Your task to perform on an android device: open wifi settings Image 0: 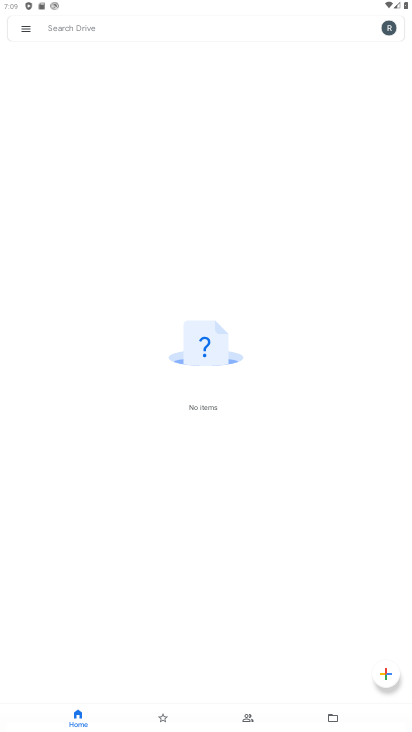
Step 0: press home button
Your task to perform on an android device: open wifi settings Image 1: 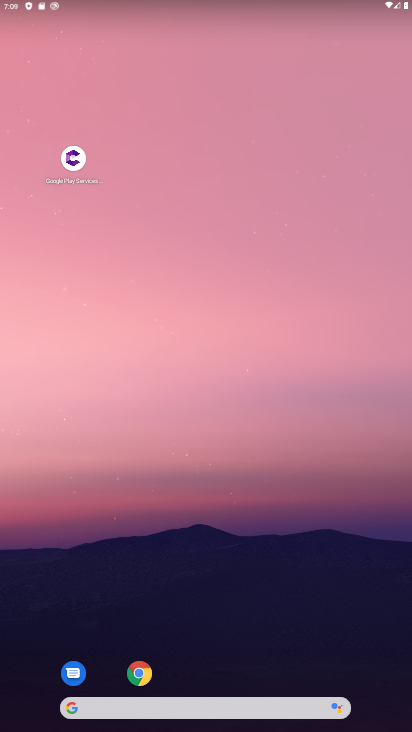
Step 1: drag from (257, 610) to (226, 48)
Your task to perform on an android device: open wifi settings Image 2: 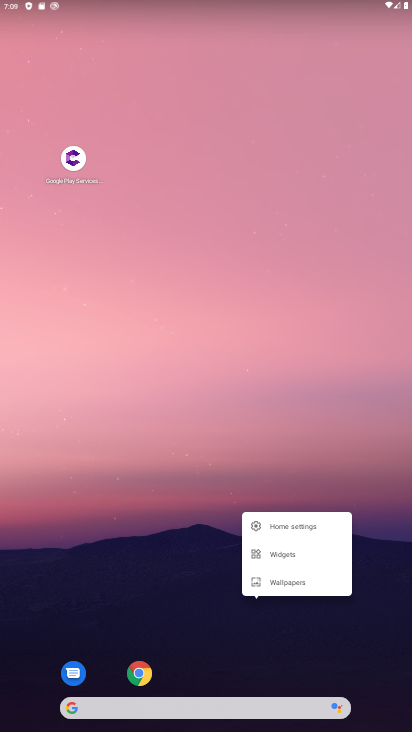
Step 2: drag from (161, 634) to (118, 3)
Your task to perform on an android device: open wifi settings Image 3: 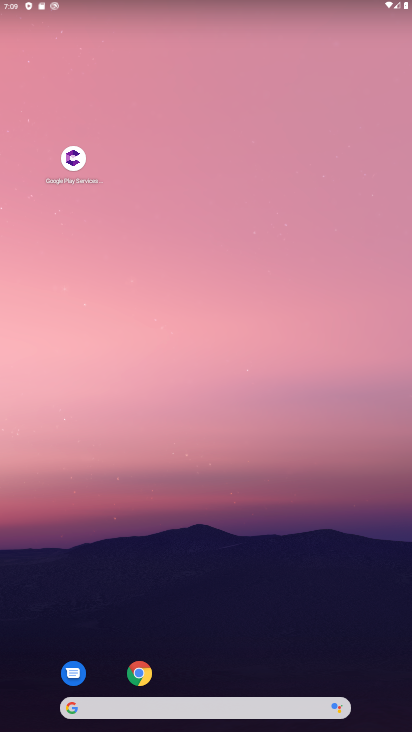
Step 3: drag from (251, 618) to (180, 39)
Your task to perform on an android device: open wifi settings Image 4: 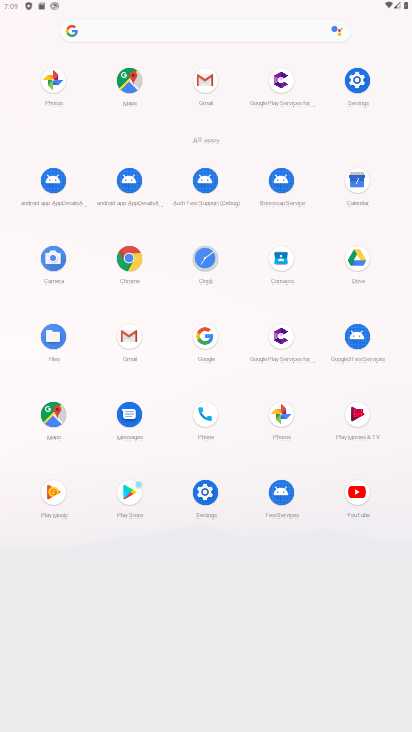
Step 4: click (357, 77)
Your task to perform on an android device: open wifi settings Image 5: 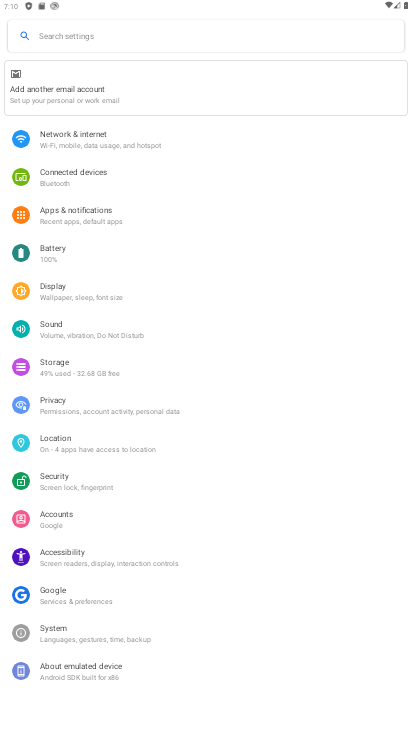
Step 5: click (84, 142)
Your task to perform on an android device: open wifi settings Image 6: 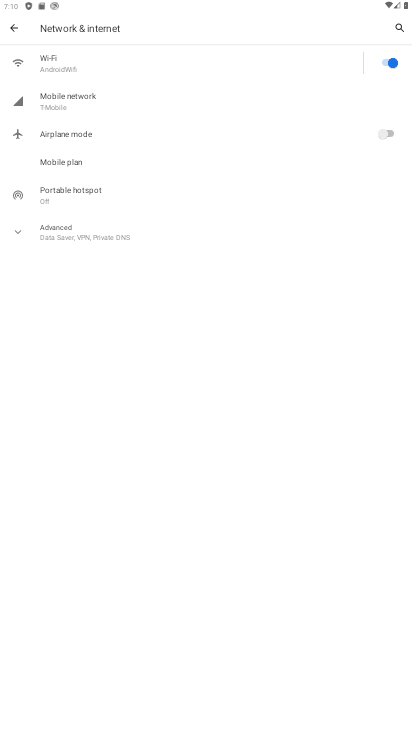
Step 6: click (56, 65)
Your task to perform on an android device: open wifi settings Image 7: 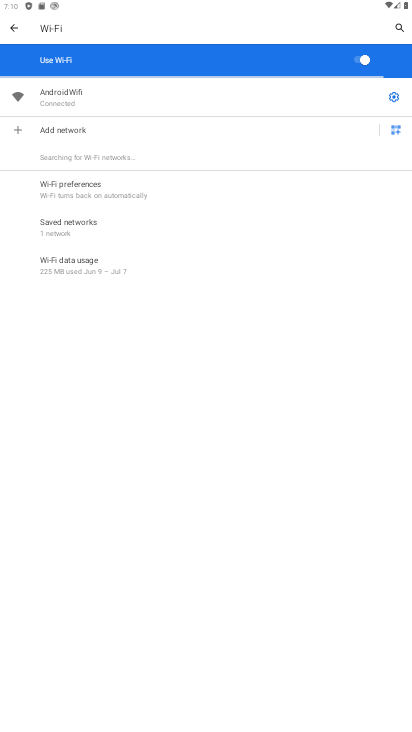
Step 7: click (395, 97)
Your task to perform on an android device: open wifi settings Image 8: 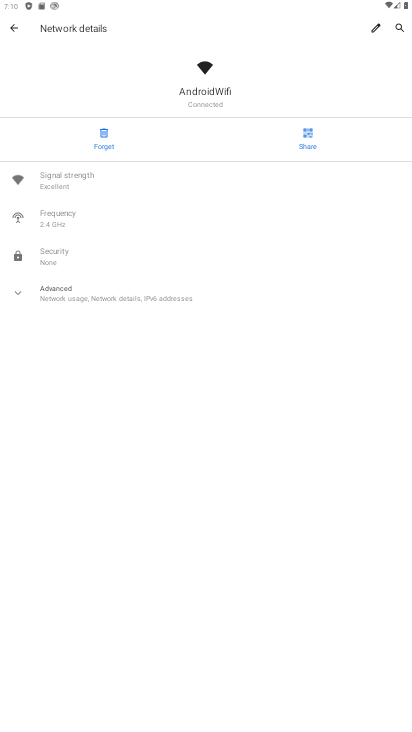
Step 8: task complete